Your task to perform on an android device: Go to Yahoo.com Image 0: 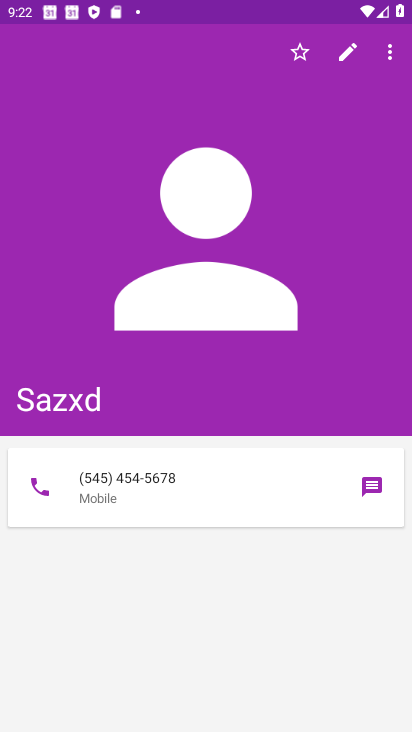
Step 0: press back button
Your task to perform on an android device: Go to Yahoo.com Image 1: 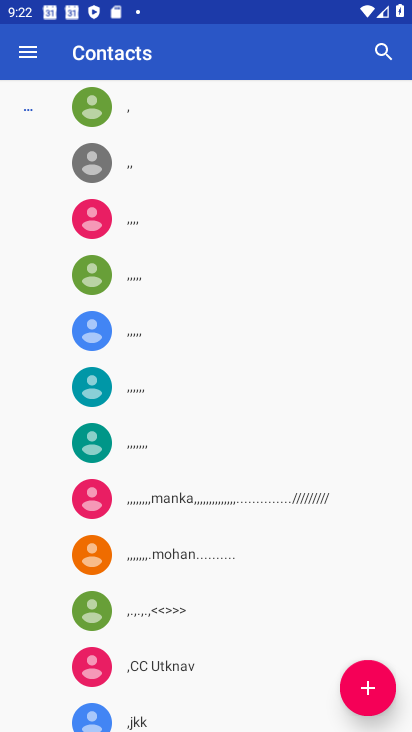
Step 1: press back button
Your task to perform on an android device: Go to Yahoo.com Image 2: 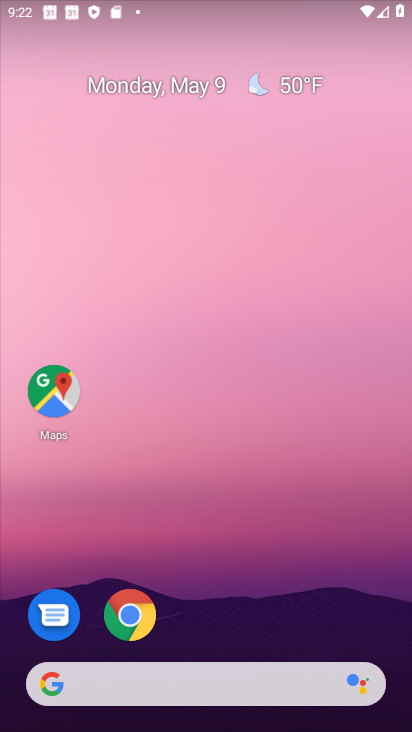
Step 2: drag from (254, 582) to (178, 4)
Your task to perform on an android device: Go to Yahoo.com Image 3: 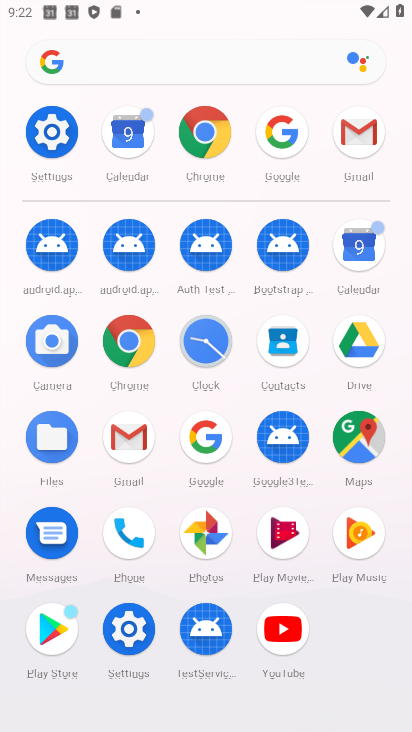
Step 3: click (204, 129)
Your task to perform on an android device: Go to Yahoo.com Image 4: 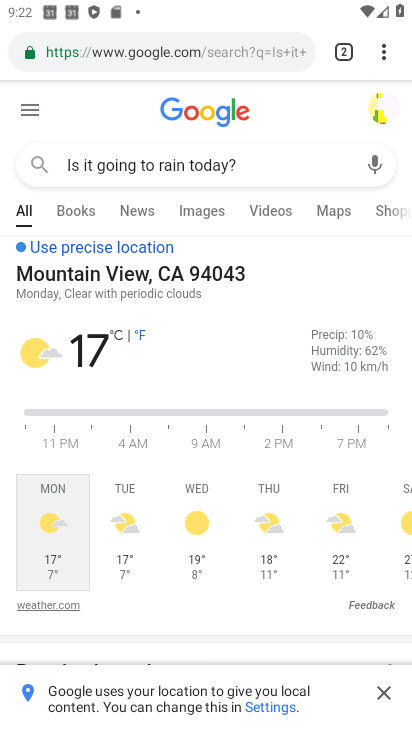
Step 4: click (199, 50)
Your task to perform on an android device: Go to Yahoo.com Image 5: 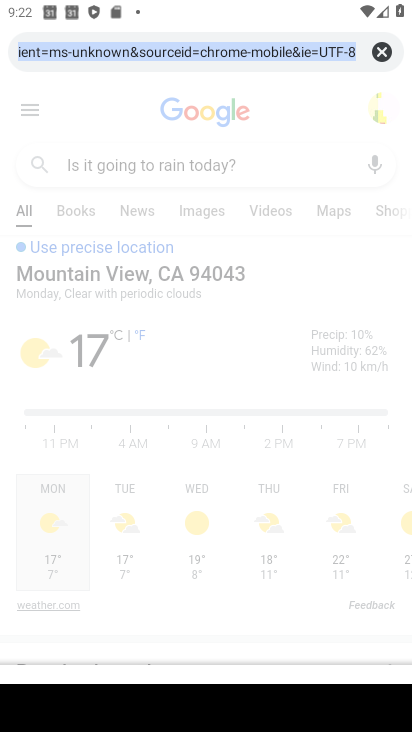
Step 5: click (386, 56)
Your task to perform on an android device: Go to Yahoo.com Image 6: 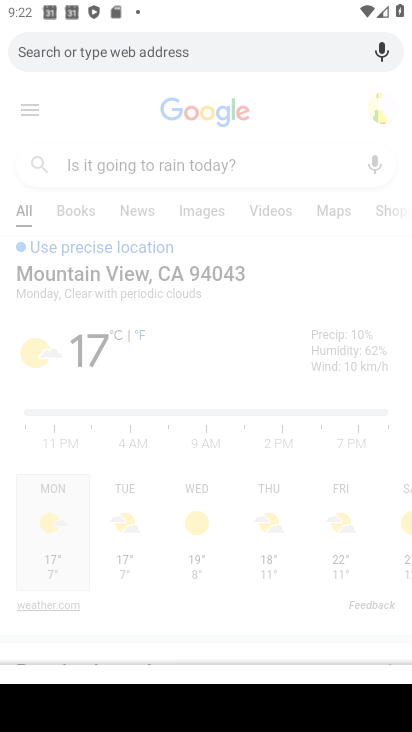
Step 6: click (183, 57)
Your task to perform on an android device: Go to Yahoo.com Image 7: 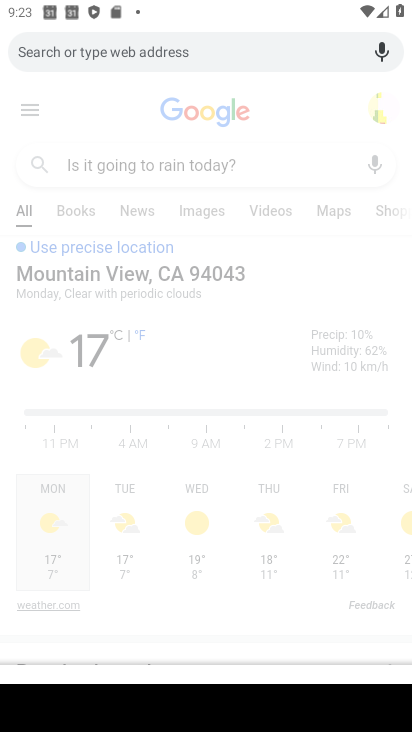
Step 7: type "Yahoo.com"
Your task to perform on an android device: Go to Yahoo.com Image 8: 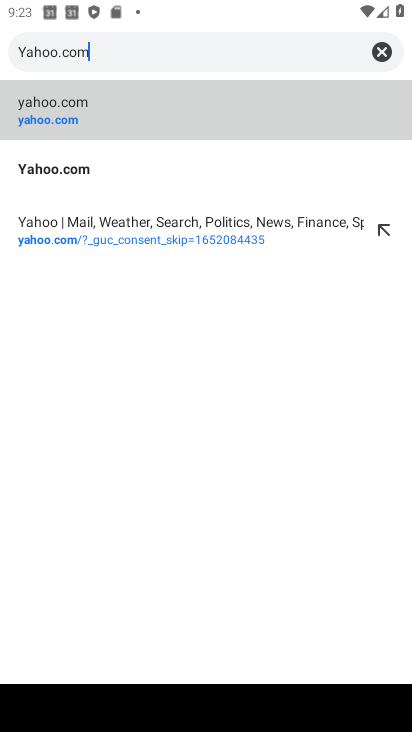
Step 8: type ""
Your task to perform on an android device: Go to Yahoo.com Image 9: 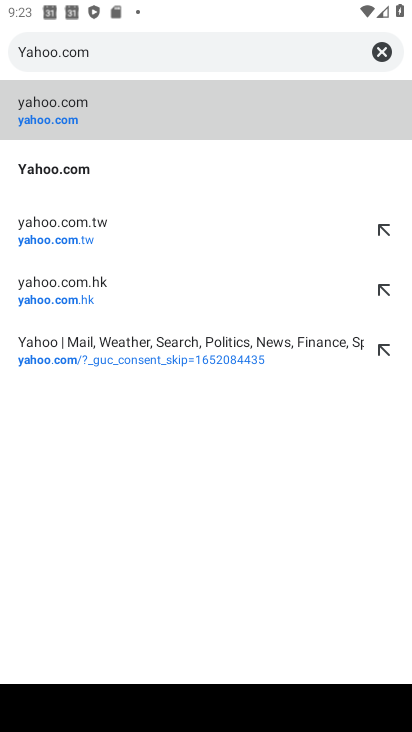
Step 9: click (79, 117)
Your task to perform on an android device: Go to Yahoo.com Image 10: 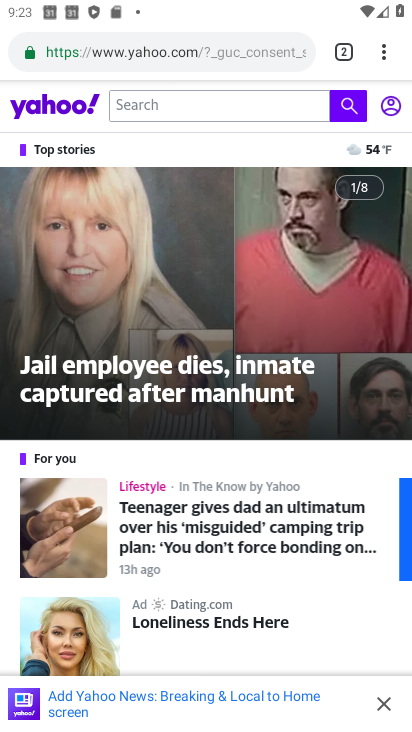
Step 10: task complete